Your task to perform on an android device: install app "Chime – Mobile Banking" Image 0: 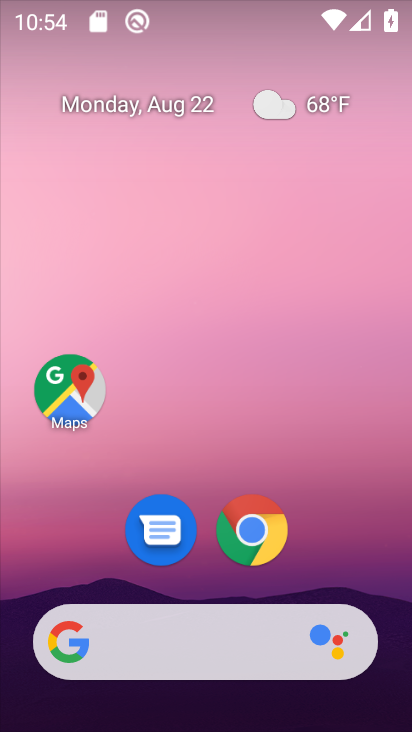
Step 0: drag from (173, 628) to (177, 11)
Your task to perform on an android device: install app "Chime – Mobile Banking" Image 1: 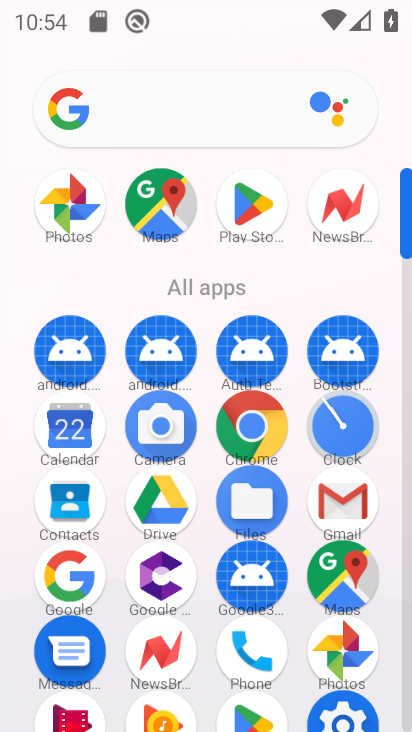
Step 1: click (253, 205)
Your task to perform on an android device: install app "Chime – Mobile Banking" Image 2: 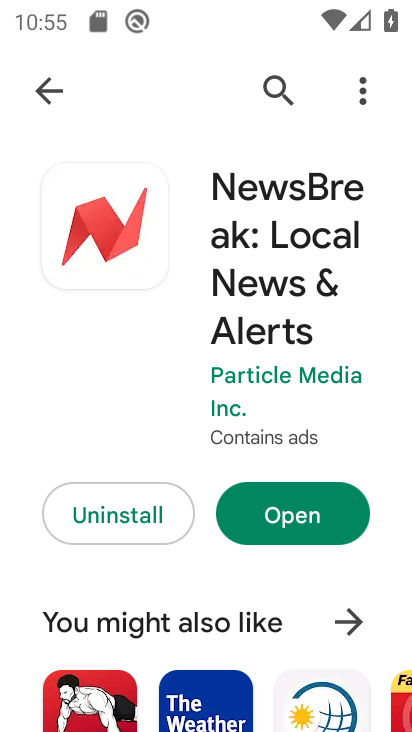
Step 2: press back button
Your task to perform on an android device: install app "Chime – Mobile Banking" Image 3: 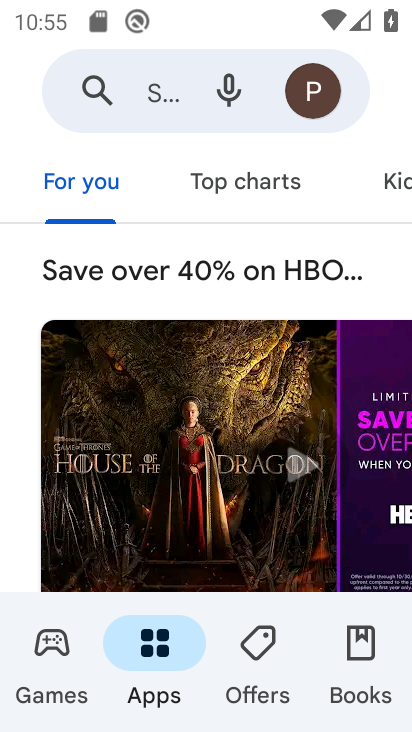
Step 3: click (179, 106)
Your task to perform on an android device: install app "Chime – Mobile Banking" Image 4: 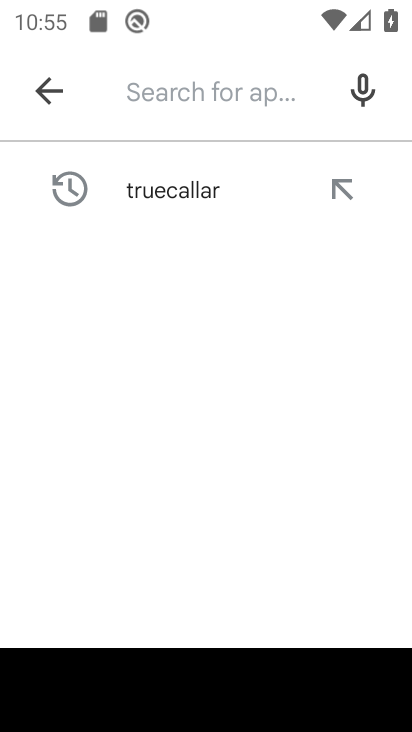
Step 4: type "Chime - Mobile Banking"
Your task to perform on an android device: install app "Chime – Mobile Banking" Image 5: 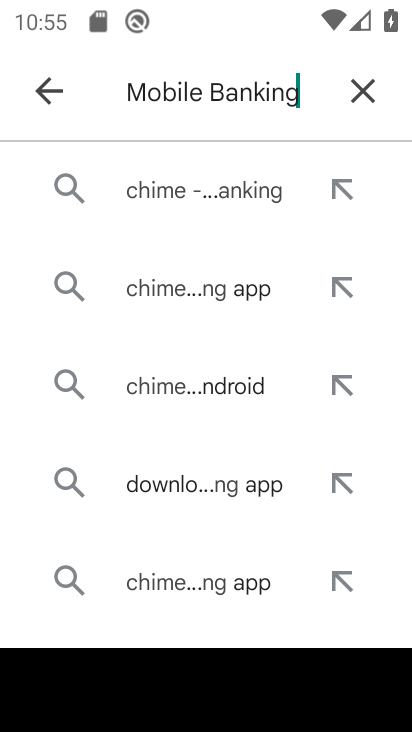
Step 5: click (223, 190)
Your task to perform on an android device: install app "Chime – Mobile Banking" Image 6: 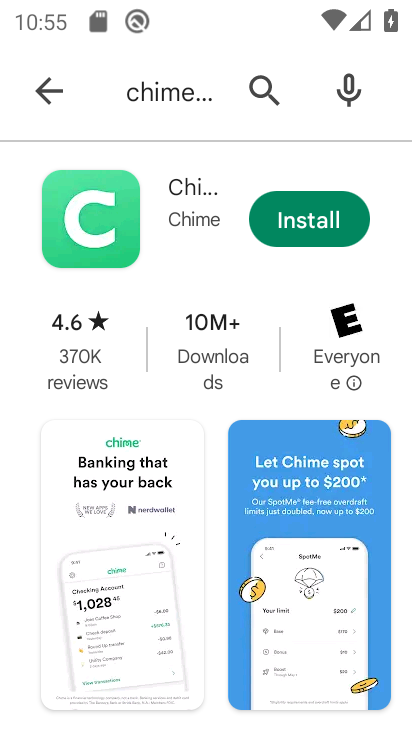
Step 6: click (304, 223)
Your task to perform on an android device: install app "Chime – Mobile Banking" Image 7: 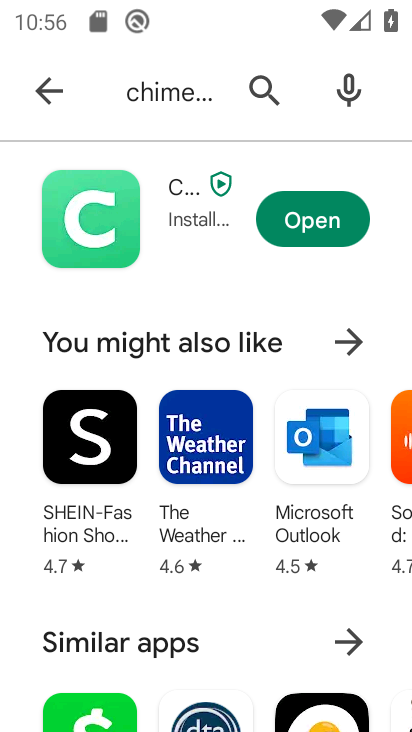
Step 7: click (315, 232)
Your task to perform on an android device: install app "Chime – Mobile Banking" Image 8: 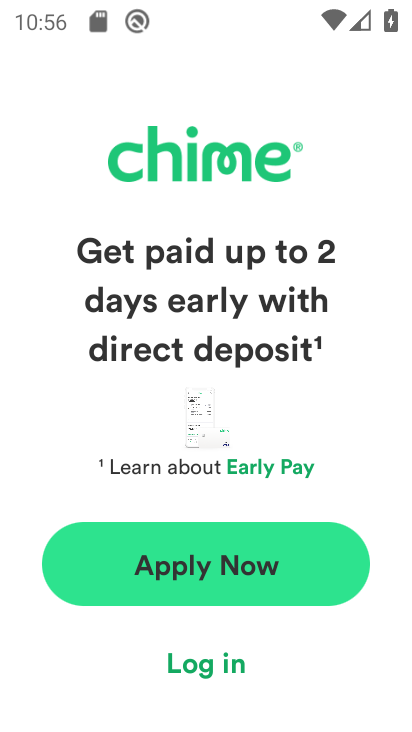
Step 8: task complete